Your task to perform on an android device: Show me productivity apps on the Play Store Image 0: 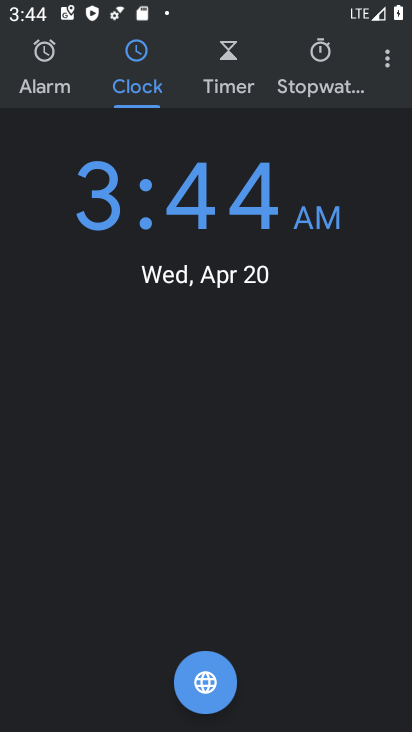
Step 0: press home button
Your task to perform on an android device: Show me productivity apps on the Play Store Image 1: 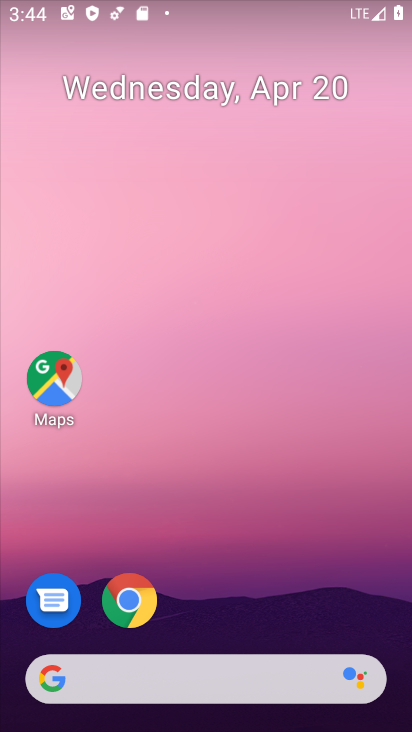
Step 1: drag from (277, 404) to (283, 91)
Your task to perform on an android device: Show me productivity apps on the Play Store Image 2: 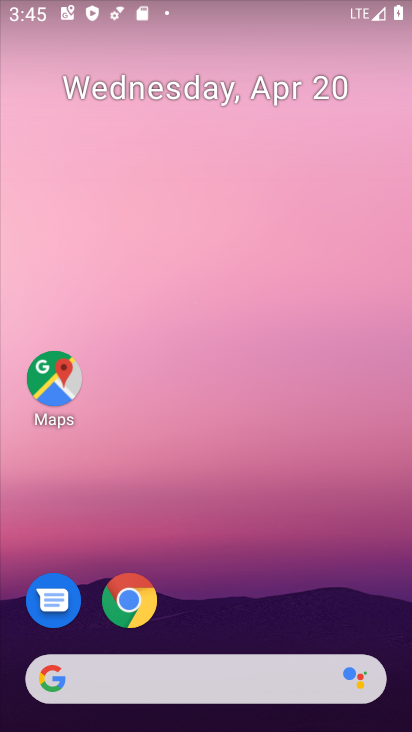
Step 2: drag from (250, 630) to (255, 175)
Your task to perform on an android device: Show me productivity apps on the Play Store Image 3: 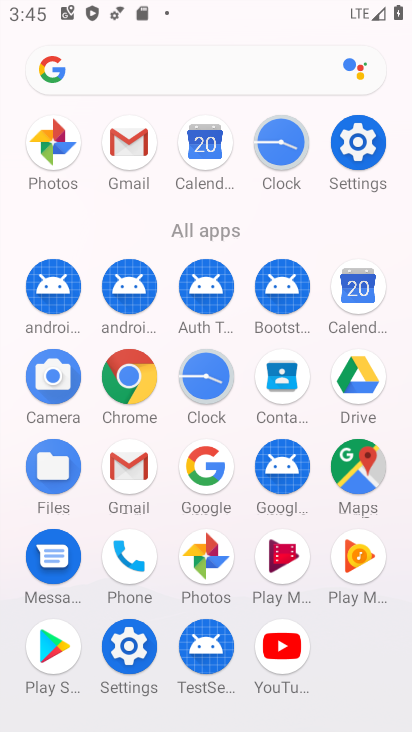
Step 3: click (36, 652)
Your task to perform on an android device: Show me productivity apps on the Play Store Image 4: 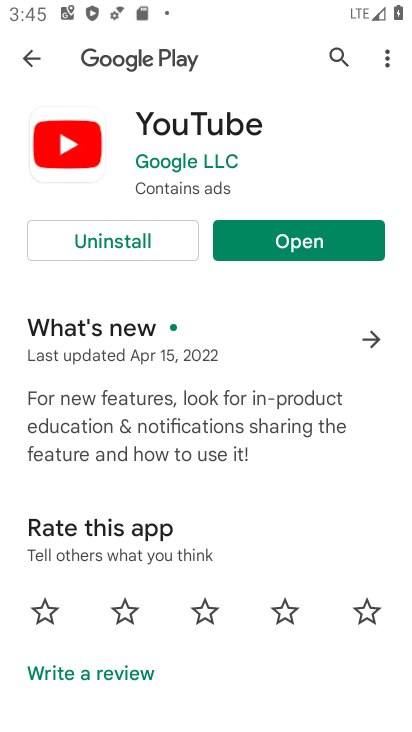
Step 4: click (28, 52)
Your task to perform on an android device: Show me productivity apps on the Play Store Image 5: 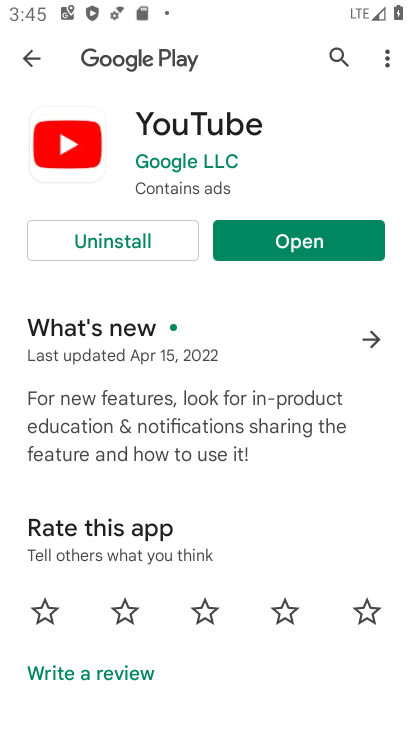
Step 5: click (28, 52)
Your task to perform on an android device: Show me productivity apps on the Play Store Image 6: 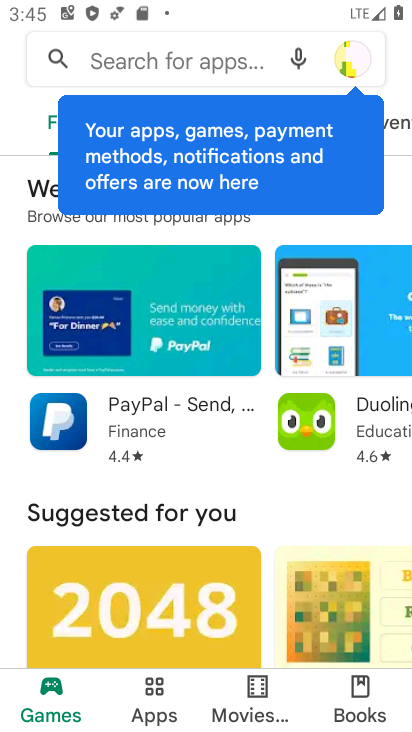
Step 6: task complete